Your task to perform on an android device: Search for razer nari on bestbuy.com, select the first entry, and add it to the cart. Image 0: 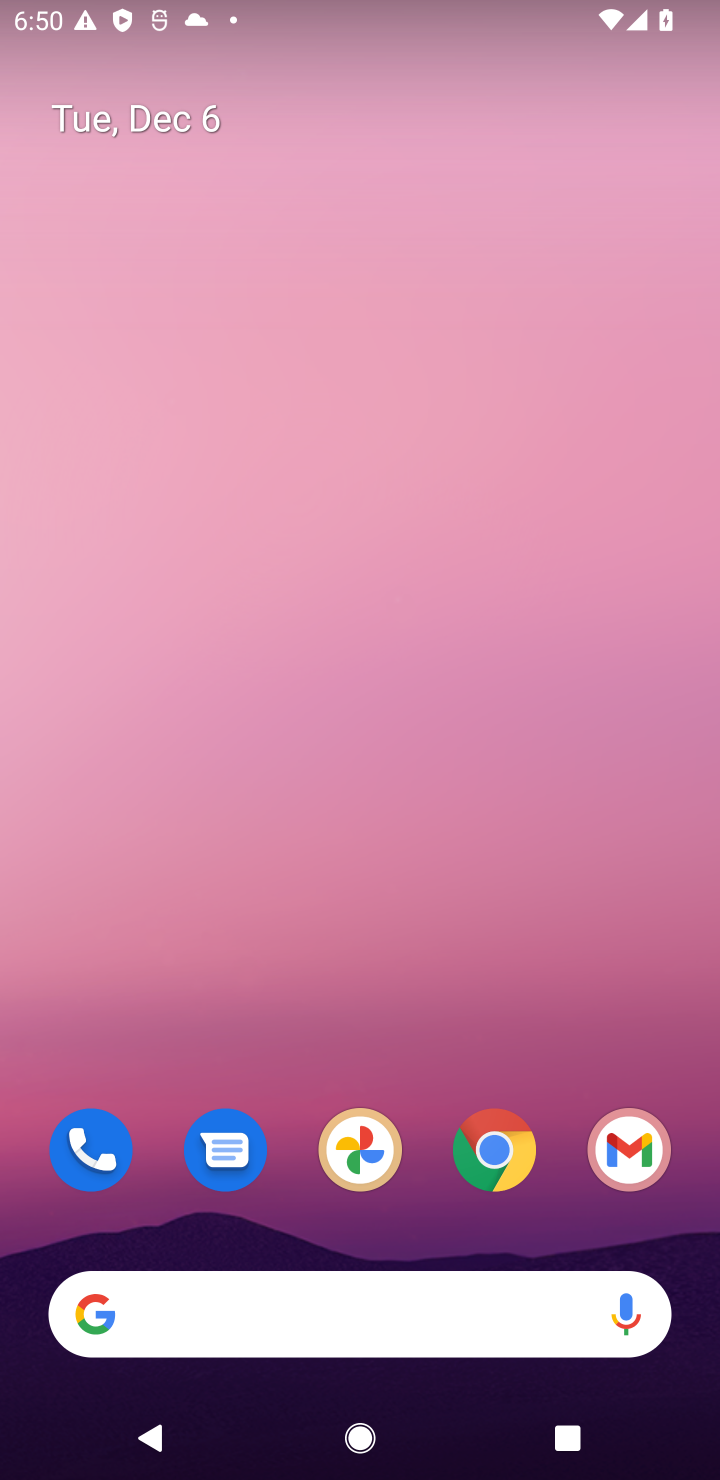
Step 0: click (494, 1149)
Your task to perform on an android device: Search for razer nari on bestbuy.com, select the first entry, and add it to the cart. Image 1: 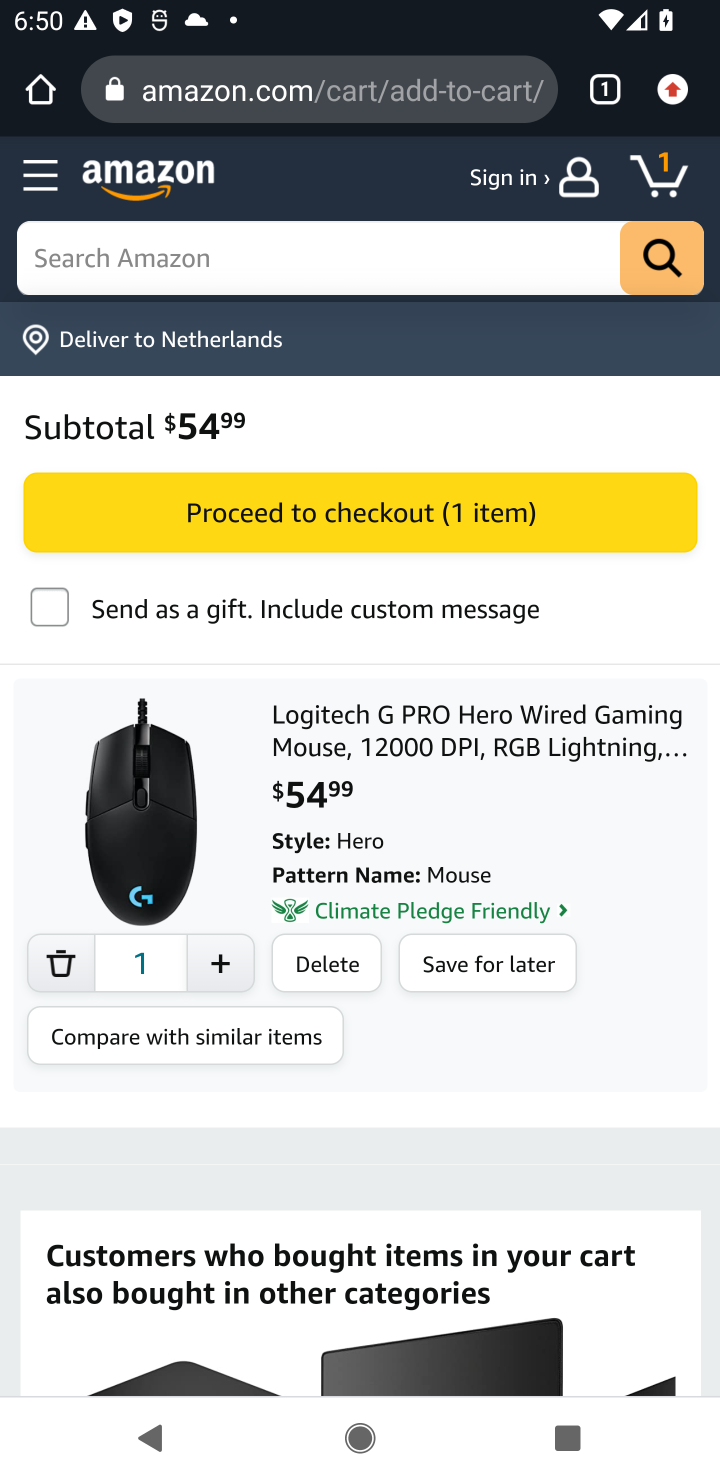
Step 1: click (308, 99)
Your task to perform on an android device: Search for razer nari on bestbuy.com, select the first entry, and add it to the cart. Image 2: 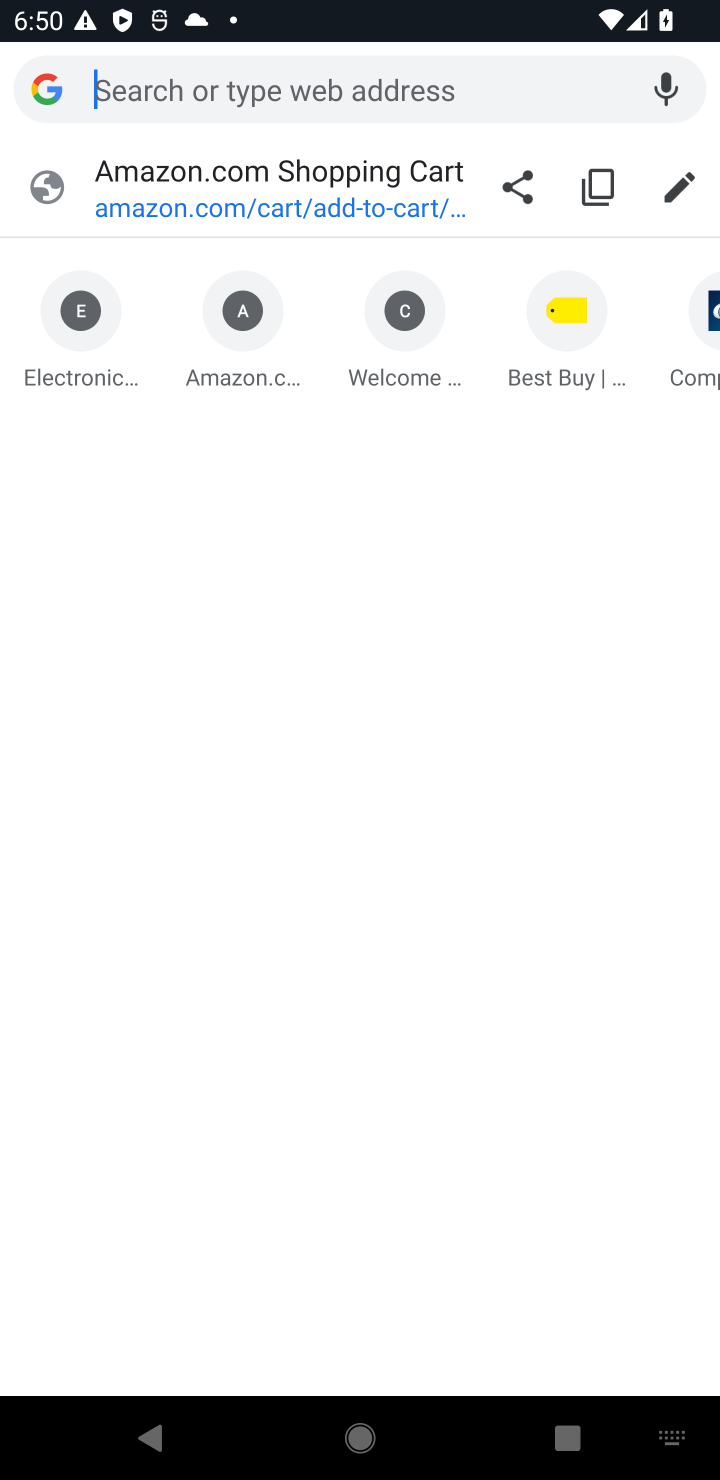
Step 2: click (540, 336)
Your task to perform on an android device: Search for razer nari on bestbuy.com, select the first entry, and add it to the cart. Image 3: 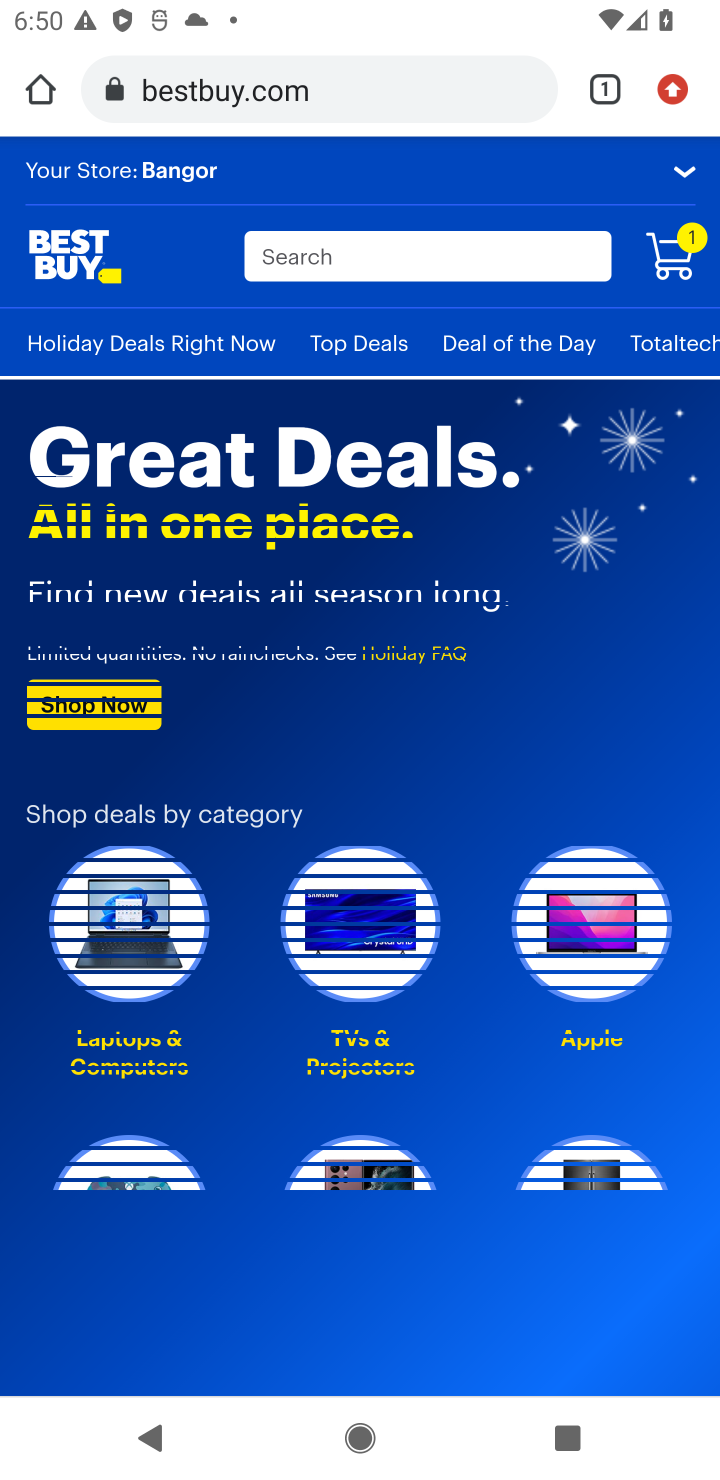
Step 3: click (342, 262)
Your task to perform on an android device: Search for razer nari on bestbuy.com, select the first entry, and add it to the cart. Image 4: 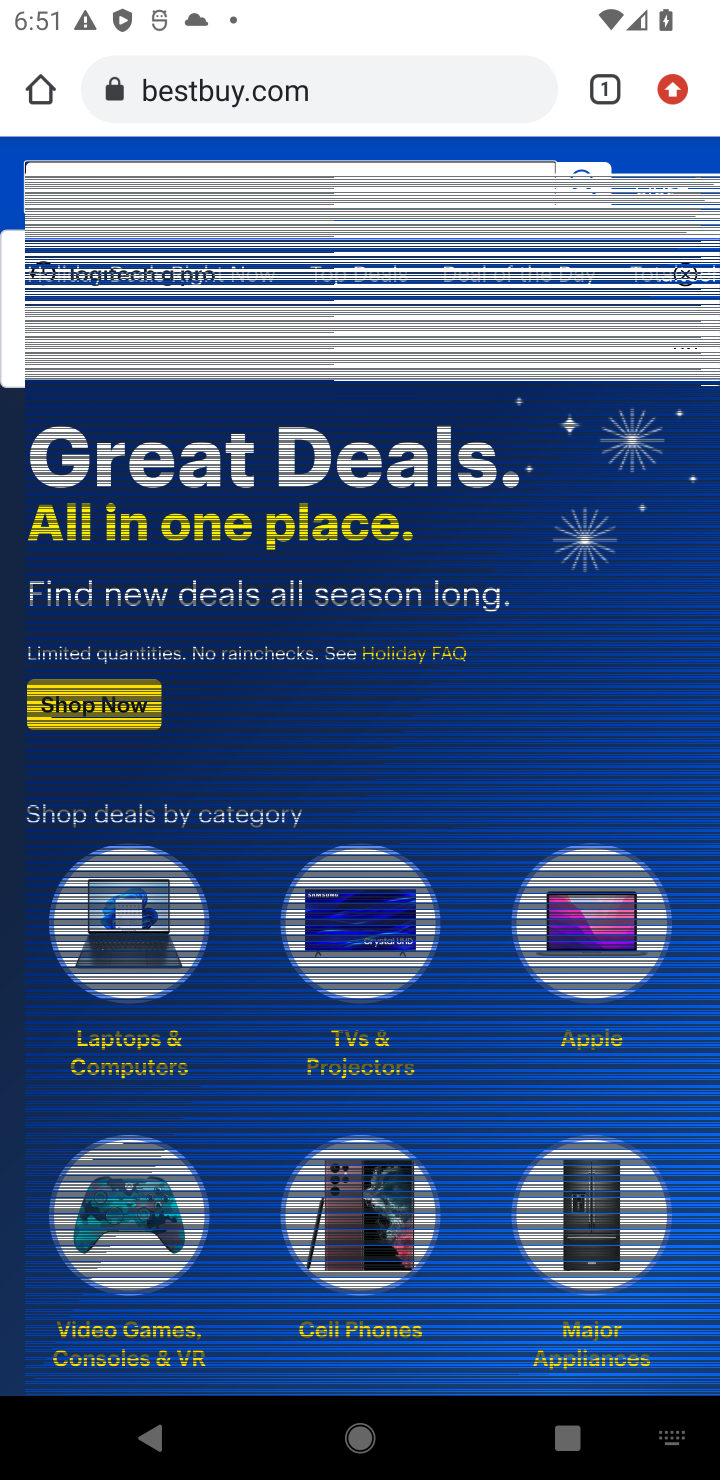
Step 4: type " razer nari "
Your task to perform on an android device: Search for razer nari on bestbuy.com, select the first entry, and add it to the cart. Image 5: 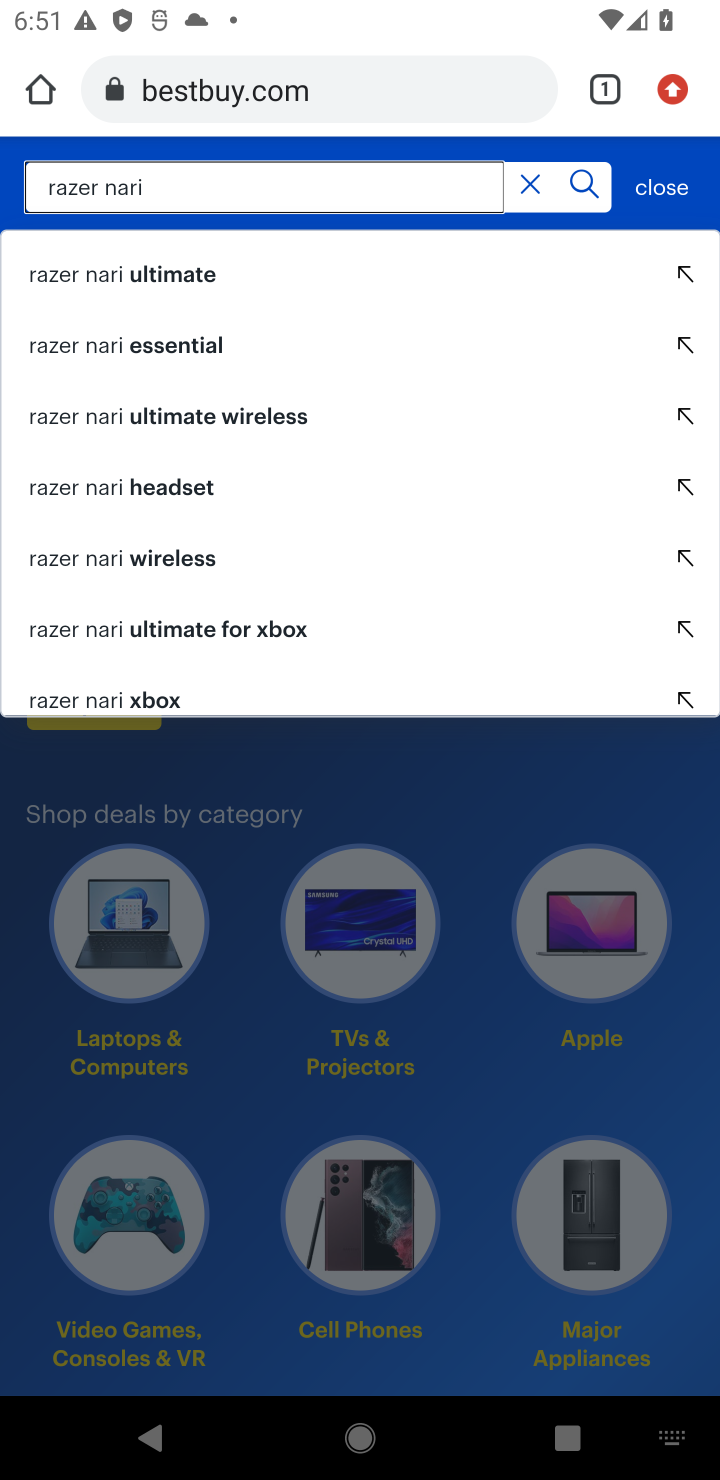
Step 5: click (583, 178)
Your task to perform on an android device: Search for razer nari on bestbuy.com, select the first entry, and add it to the cart. Image 6: 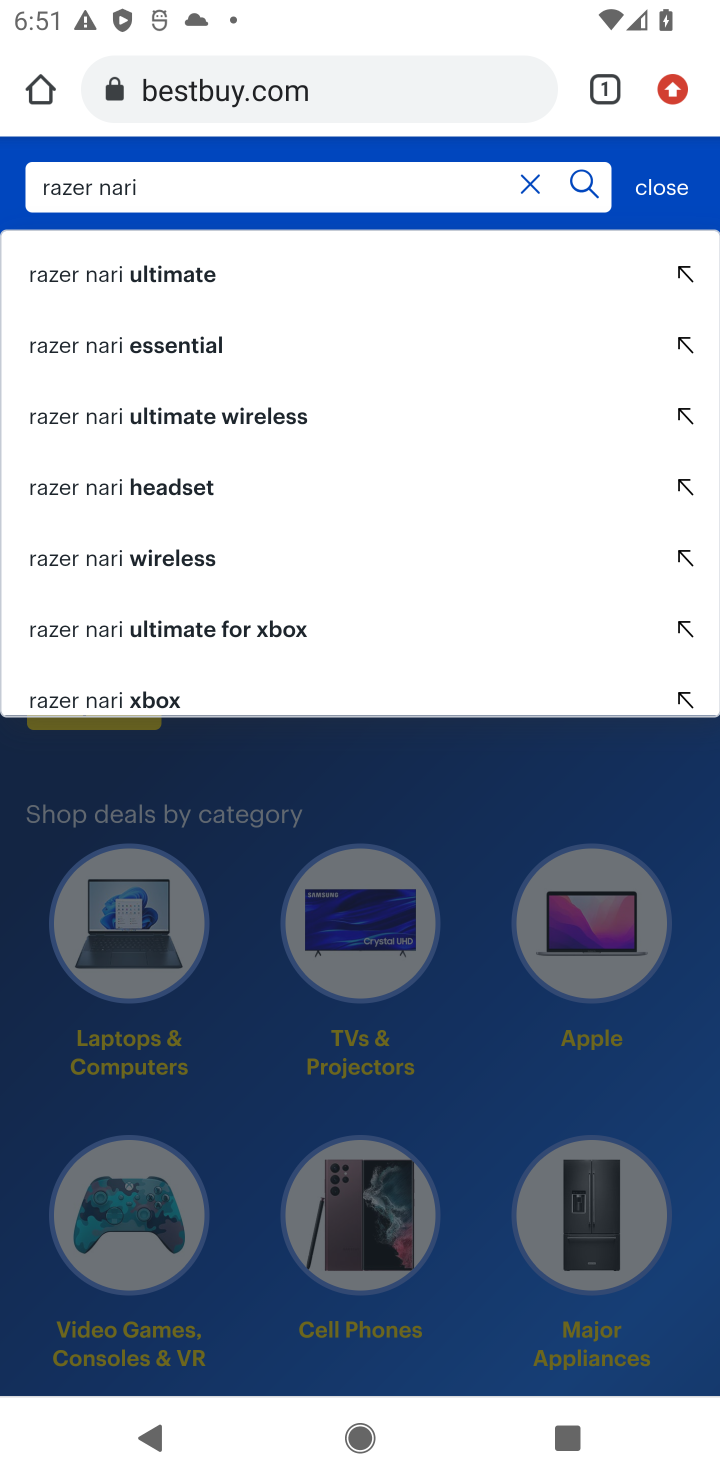
Step 6: click (583, 178)
Your task to perform on an android device: Search for razer nari on bestbuy.com, select the first entry, and add it to the cart. Image 7: 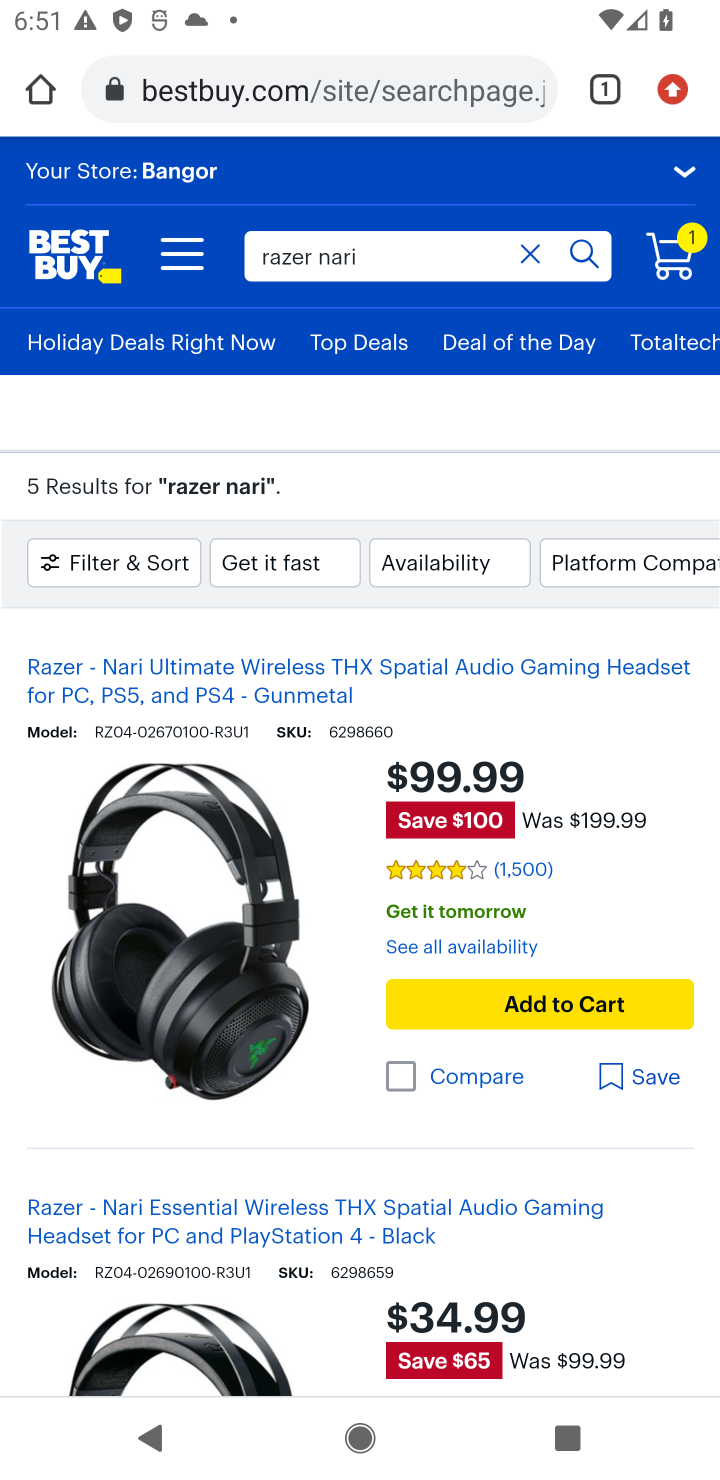
Step 7: click (506, 1002)
Your task to perform on an android device: Search for razer nari on bestbuy.com, select the first entry, and add it to the cart. Image 8: 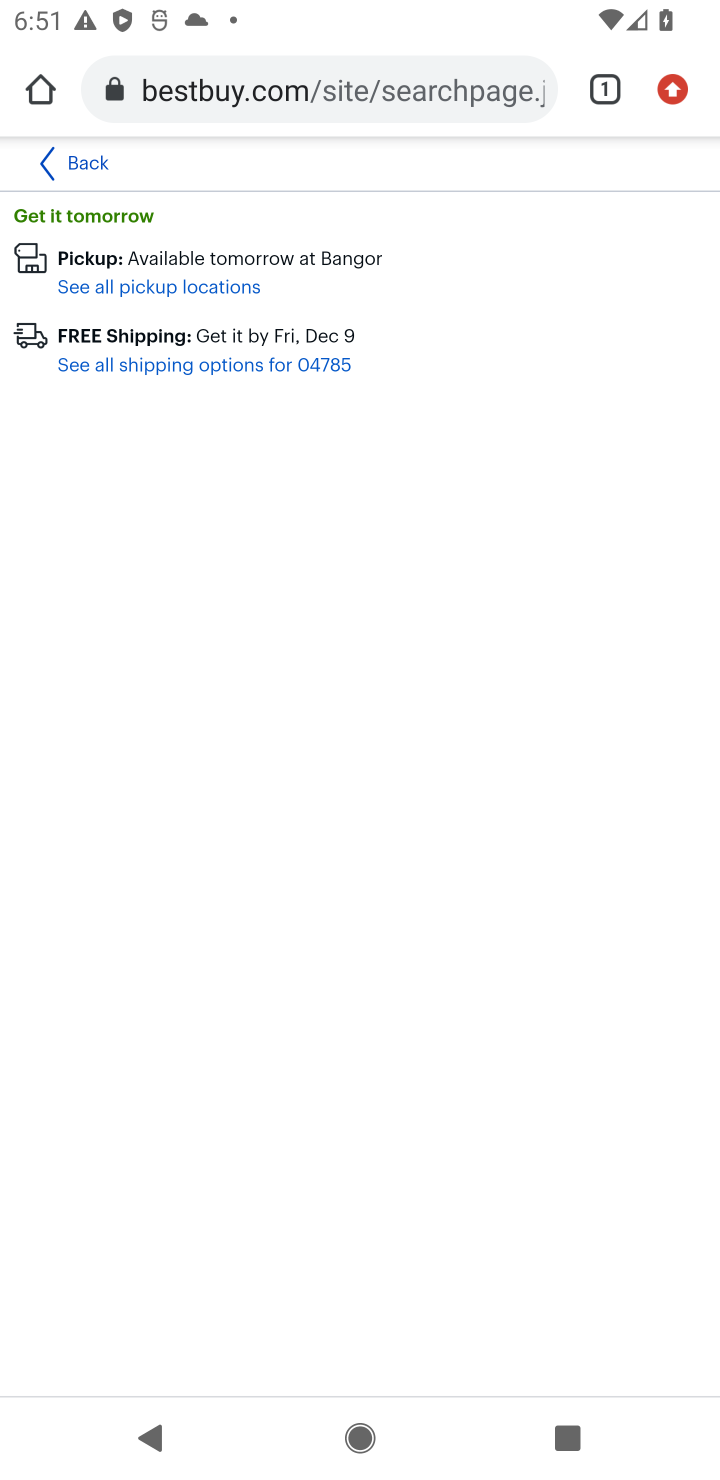
Step 8: click (58, 168)
Your task to perform on an android device: Search for razer nari on bestbuy.com, select the first entry, and add it to the cart. Image 9: 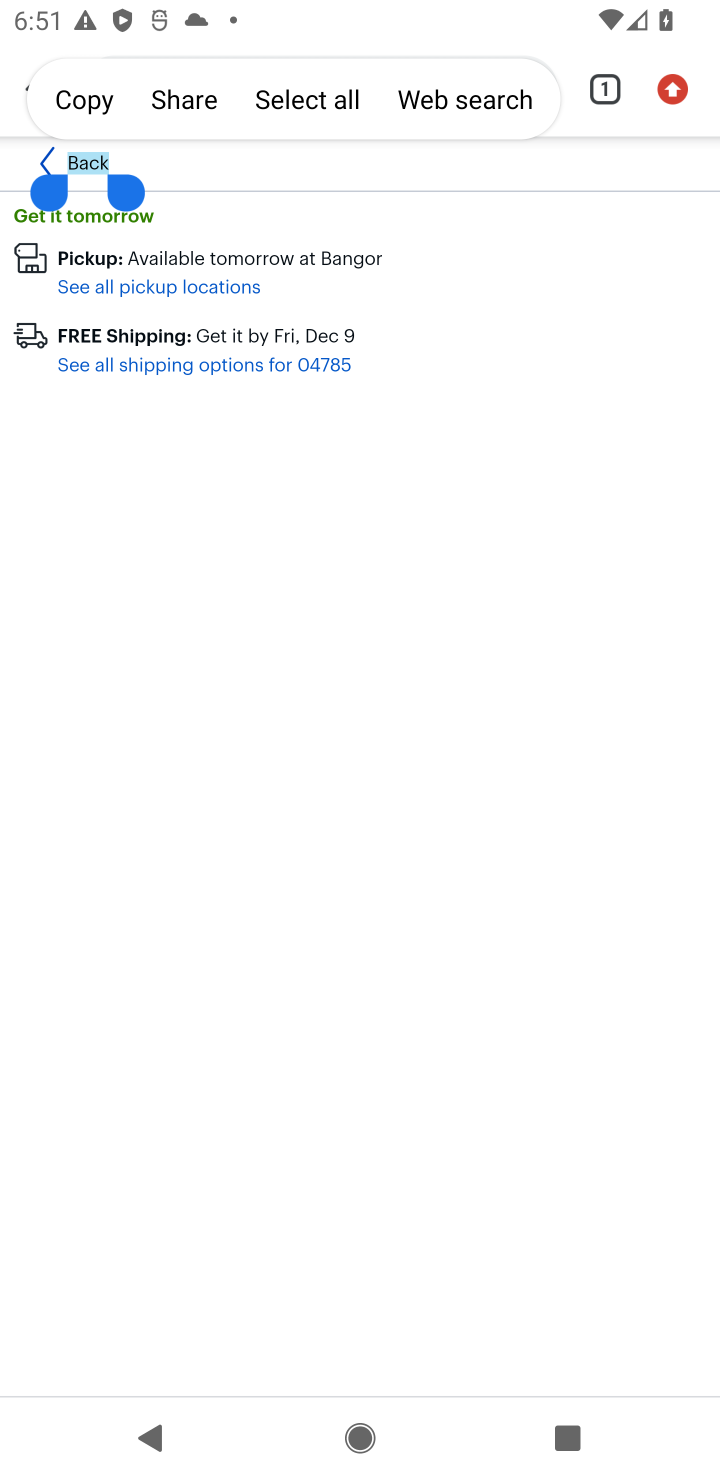
Step 9: click (38, 159)
Your task to perform on an android device: Search for razer nari on bestbuy.com, select the first entry, and add it to the cart. Image 10: 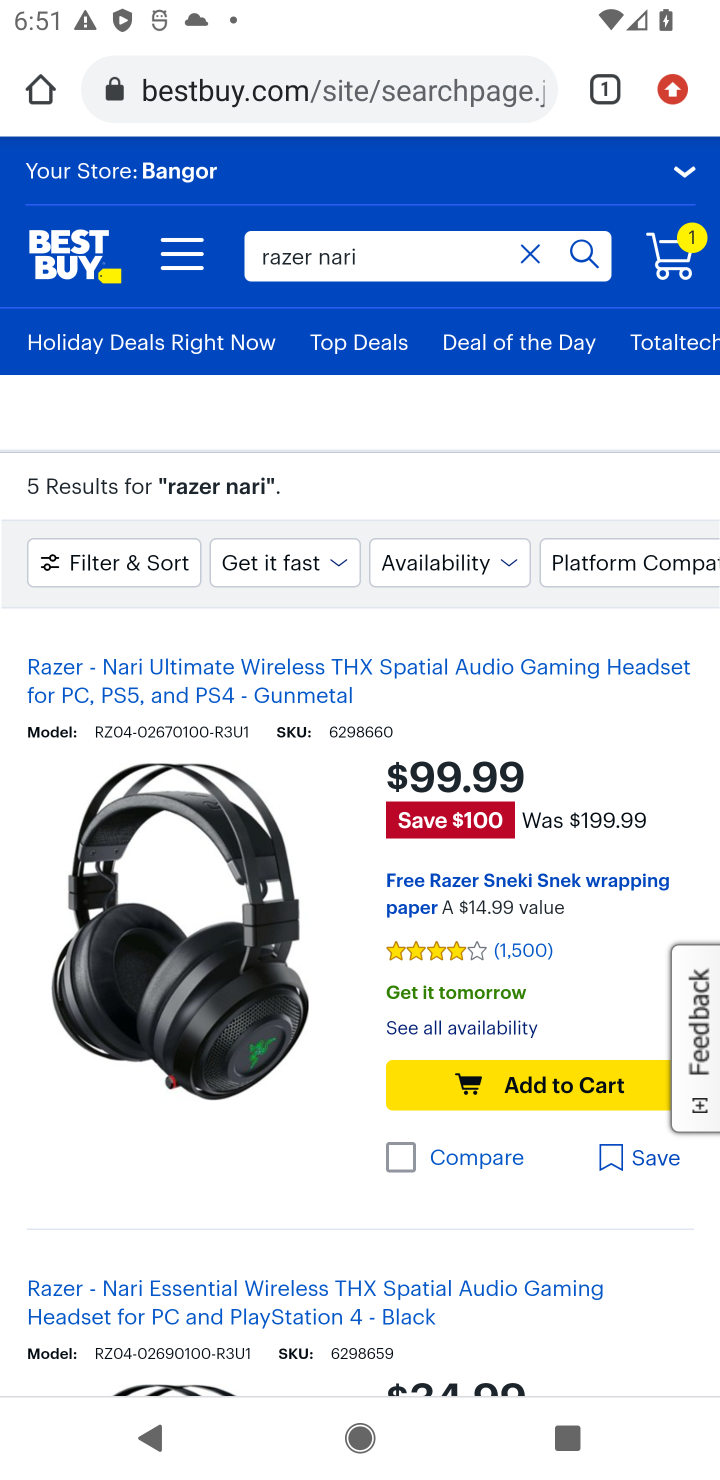
Step 10: click (495, 1101)
Your task to perform on an android device: Search for razer nari on bestbuy.com, select the first entry, and add it to the cart. Image 11: 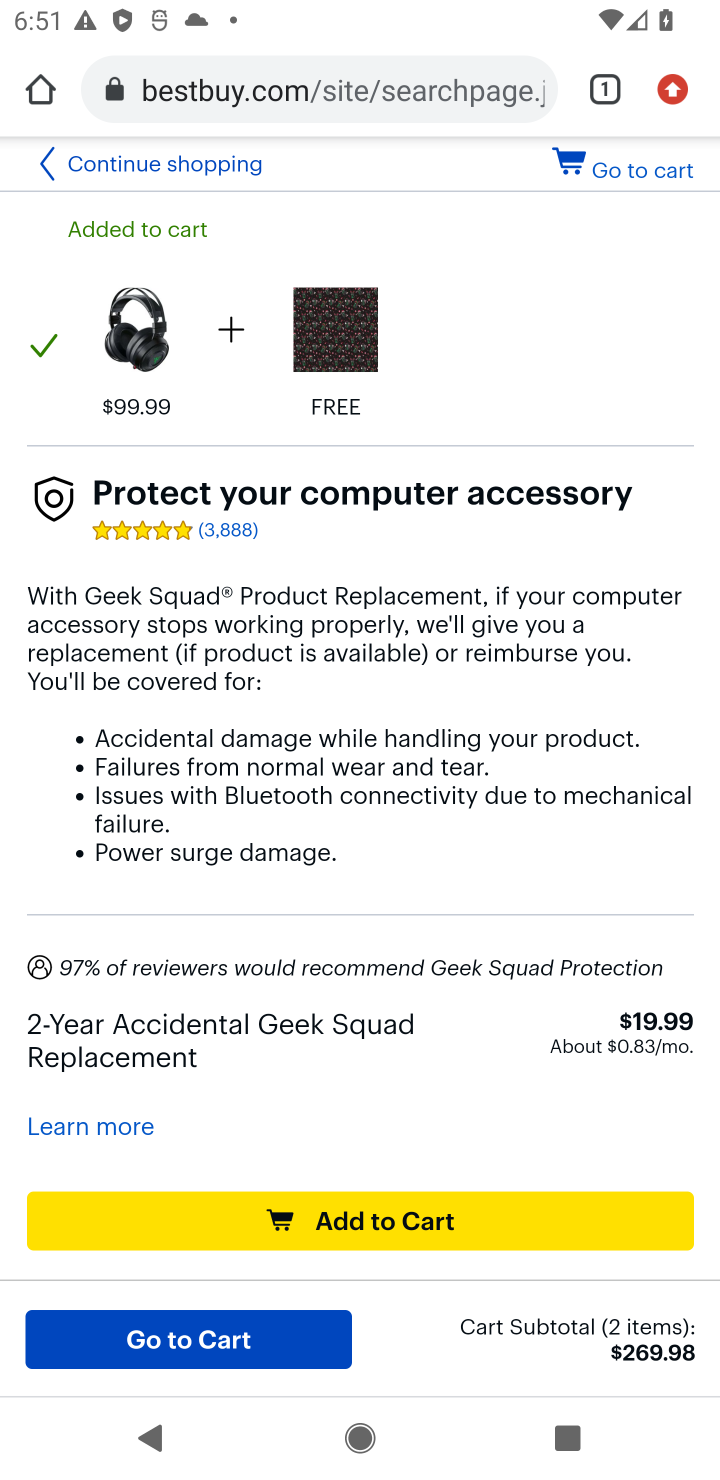
Step 11: task complete